Your task to perform on an android device: set default search engine in the chrome app Image 0: 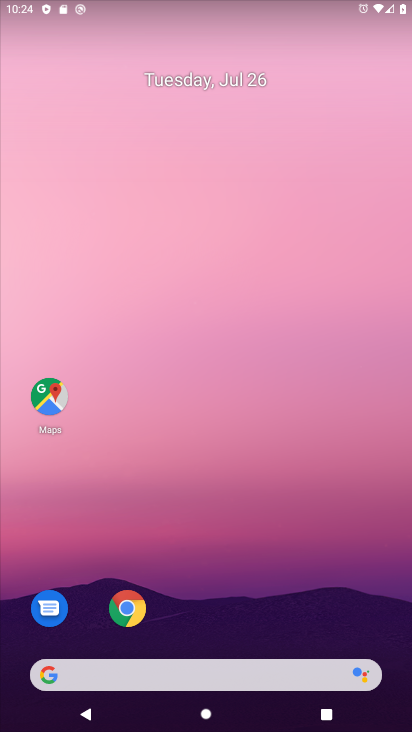
Step 0: click (129, 616)
Your task to perform on an android device: set default search engine in the chrome app Image 1: 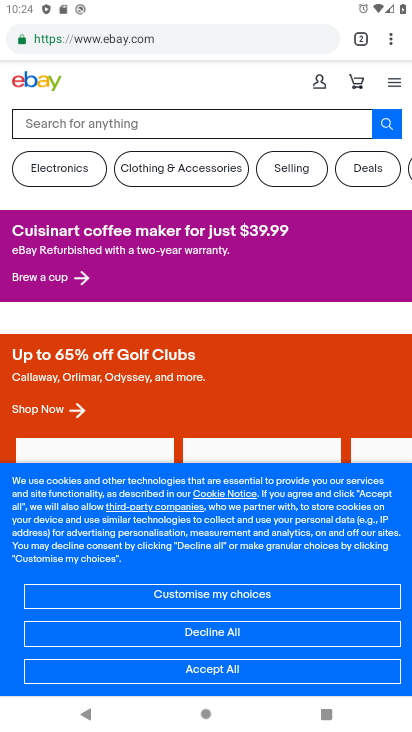
Step 1: click (389, 44)
Your task to perform on an android device: set default search engine in the chrome app Image 2: 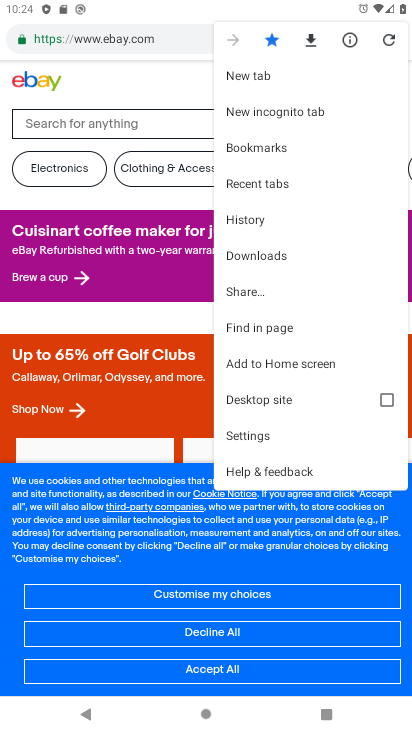
Step 2: click (248, 437)
Your task to perform on an android device: set default search engine in the chrome app Image 3: 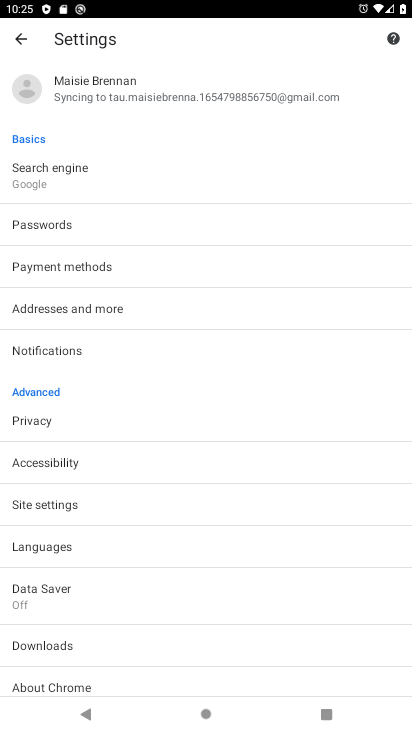
Step 3: click (38, 170)
Your task to perform on an android device: set default search engine in the chrome app Image 4: 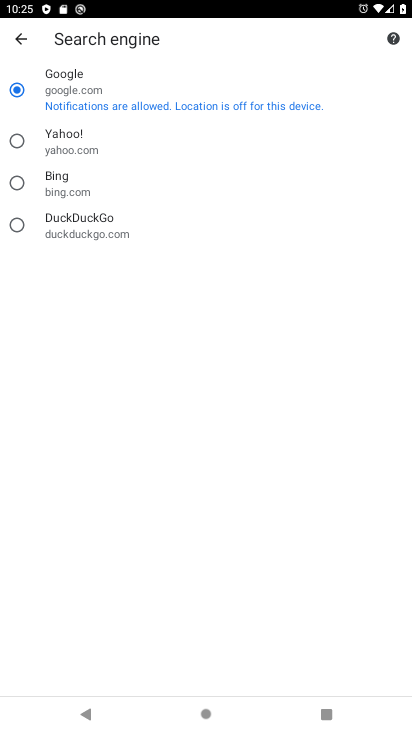
Step 4: click (19, 181)
Your task to perform on an android device: set default search engine in the chrome app Image 5: 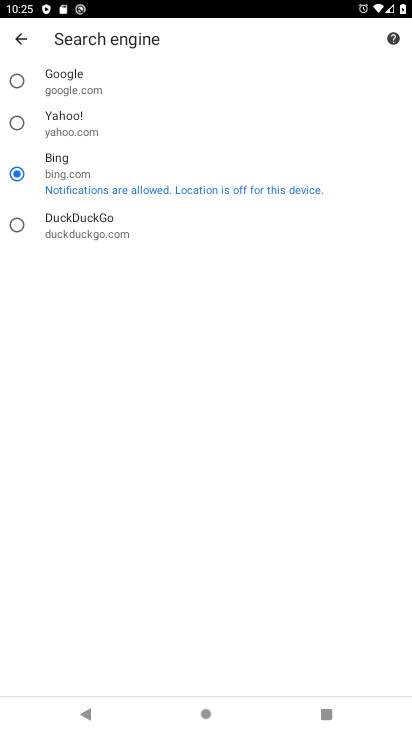
Step 5: task complete